Your task to perform on an android device: Open the calendar app, open the side menu, and click the "Day" option Image 0: 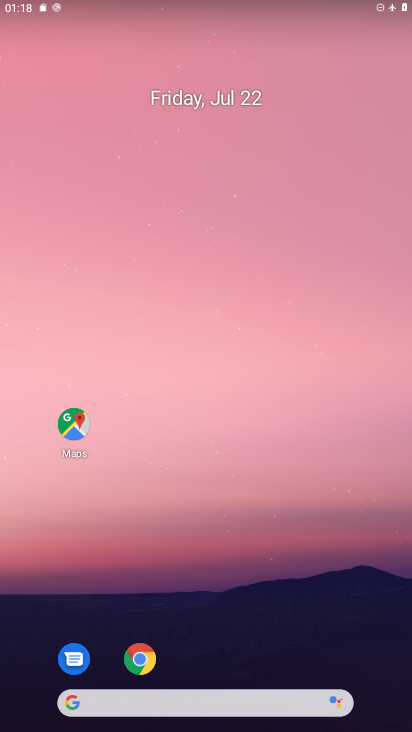
Step 0: drag from (182, 706) to (140, 226)
Your task to perform on an android device: Open the calendar app, open the side menu, and click the "Day" option Image 1: 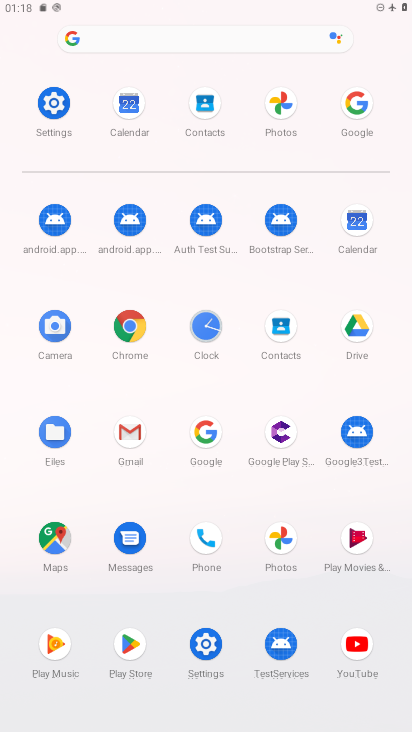
Step 1: click (354, 223)
Your task to perform on an android device: Open the calendar app, open the side menu, and click the "Day" option Image 2: 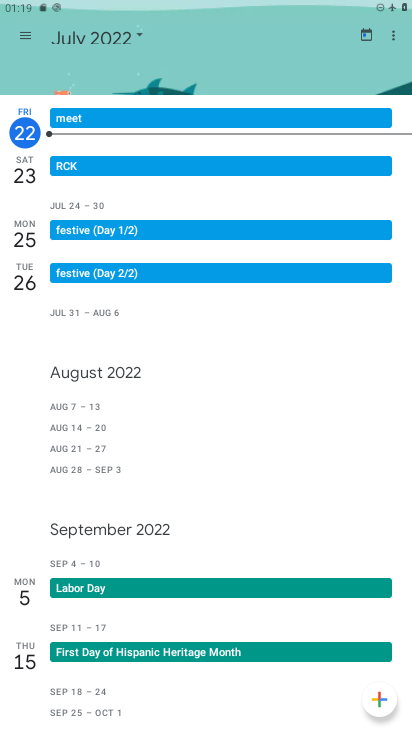
Step 2: click (24, 35)
Your task to perform on an android device: Open the calendar app, open the side menu, and click the "Day" option Image 3: 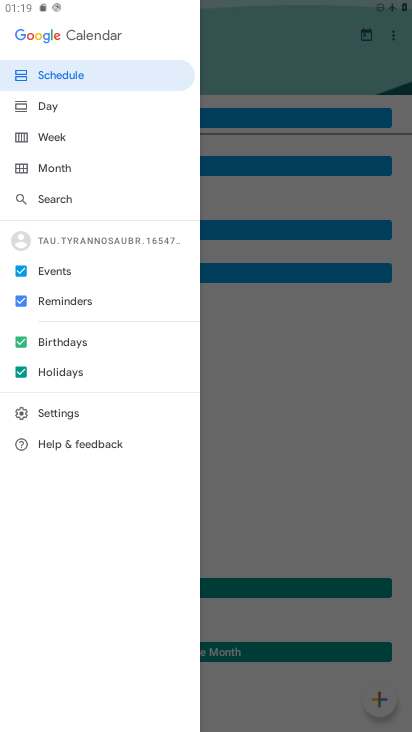
Step 3: click (43, 110)
Your task to perform on an android device: Open the calendar app, open the side menu, and click the "Day" option Image 4: 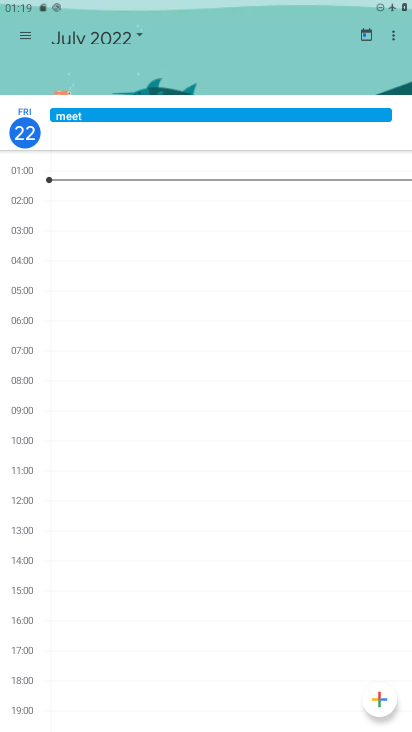
Step 4: task complete